Your task to perform on an android device: toggle notifications settings in the gmail app Image 0: 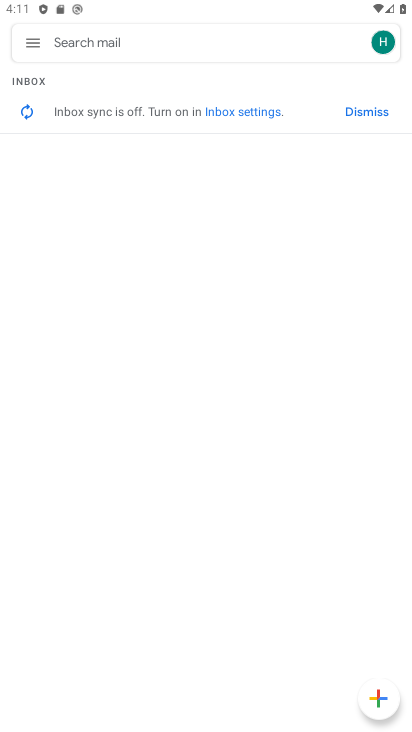
Step 0: press home button
Your task to perform on an android device: toggle notifications settings in the gmail app Image 1: 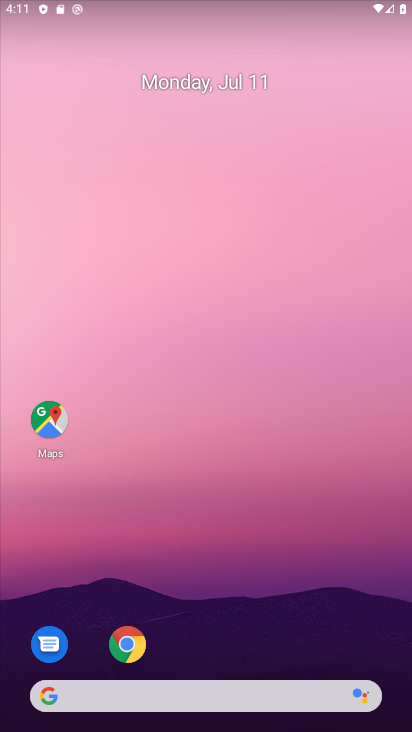
Step 1: drag from (217, 649) to (155, 189)
Your task to perform on an android device: toggle notifications settings in the gmail app Image 2: 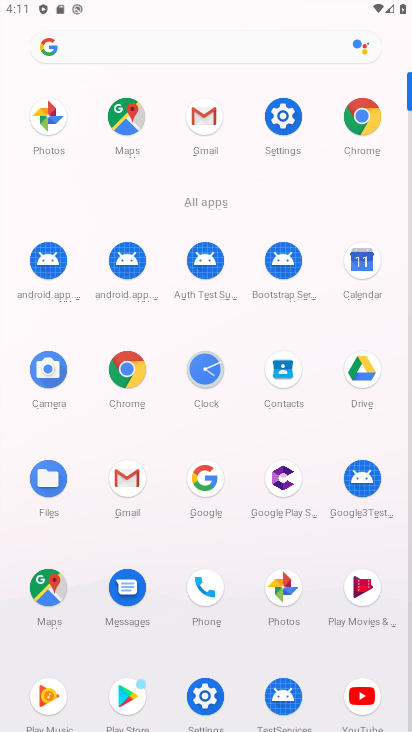
Step 2: click (204, 133)
Your task to perform on an android device: toggle notifications settings in the gmail app Image 3: 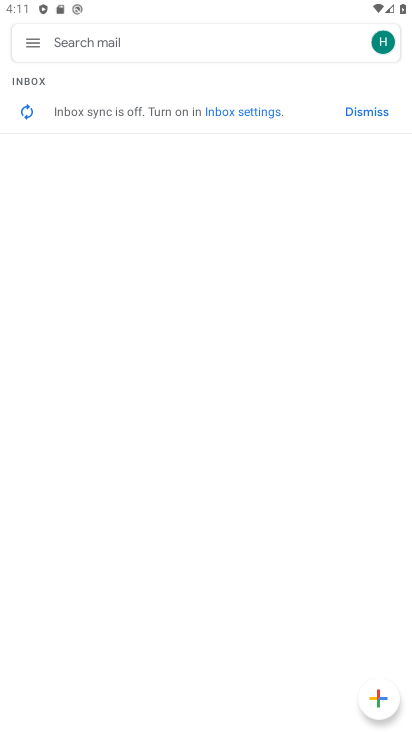
Step 3: click (33, 39)
Your task to perform on an android device: toggle notifications settings in the gmail app Image 4: 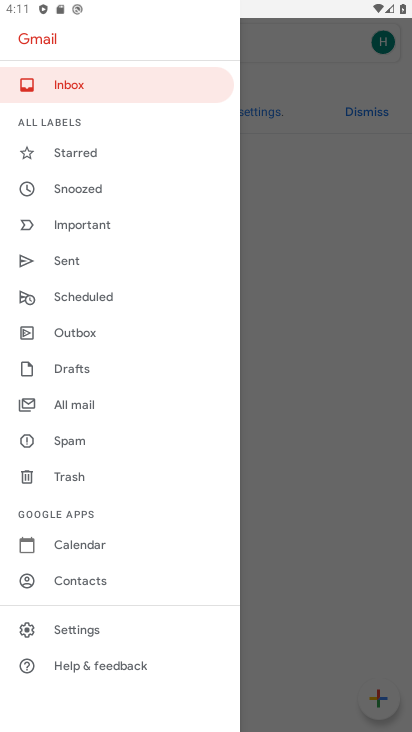
Step 4: click (92, 623)
Your task to perform on an android device: toggle notifications settings in the gmail app Image 5: 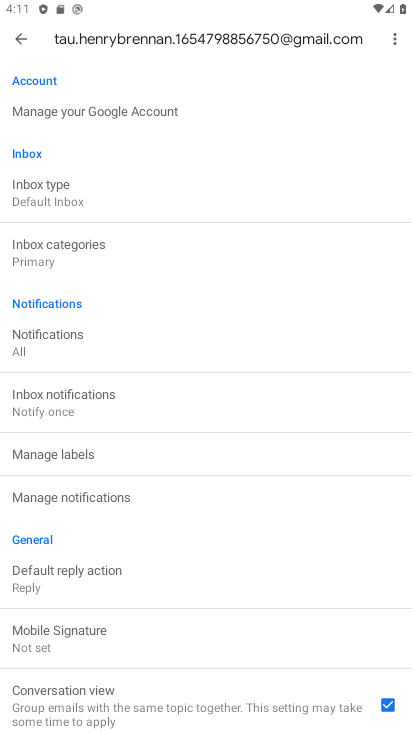
Step 5: click (117, 494)
Your task to perform on an android device: toggle notifications settings in the gmail app Image 6: 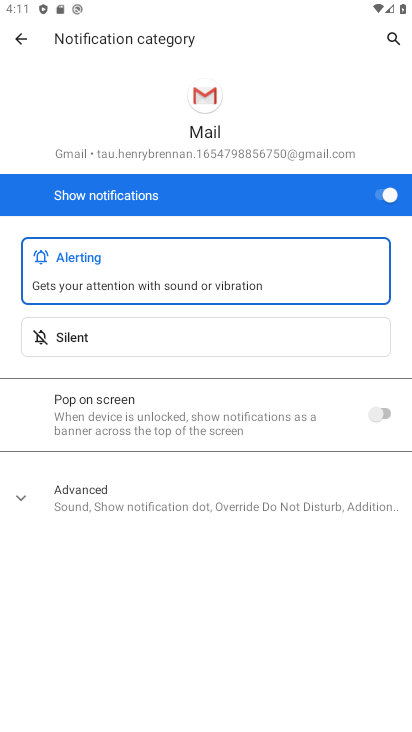
Step 6: click (389, 191)
Your task to perform on an android device: toggle notifications settings in the gmail app Image 7: 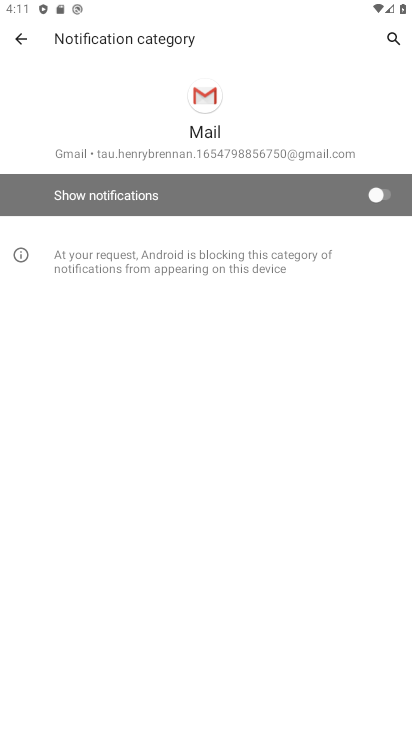
Step 7: task complete